Your task to perform on an android device: Go to ESPN.com Image 0: 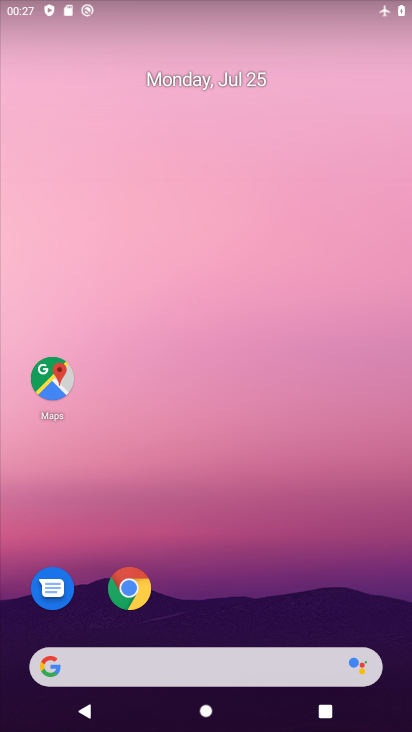
Step 0: click (126, 586)
Your task to perform on an android device: Go to ESPN.com Image 1: 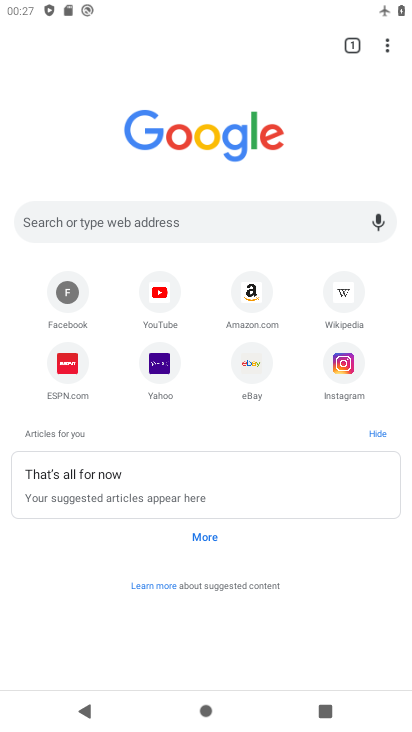
Step 1: click (75, 390)
Your task to perform on an android device: Go to ESPN.com Image 2: 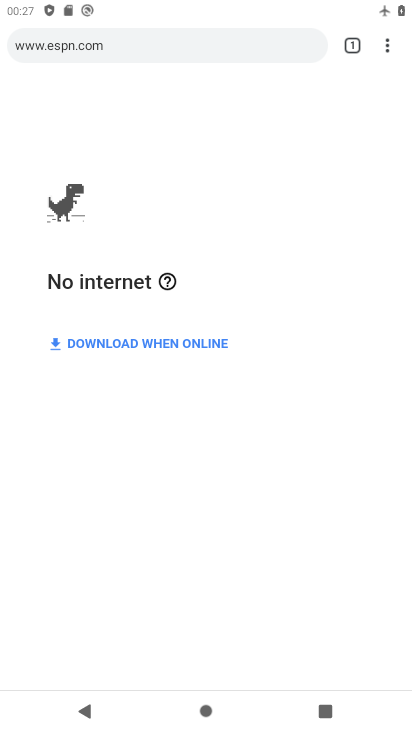
Step 2: task complete